Your task to perform on an android device: check data usage Image 0: 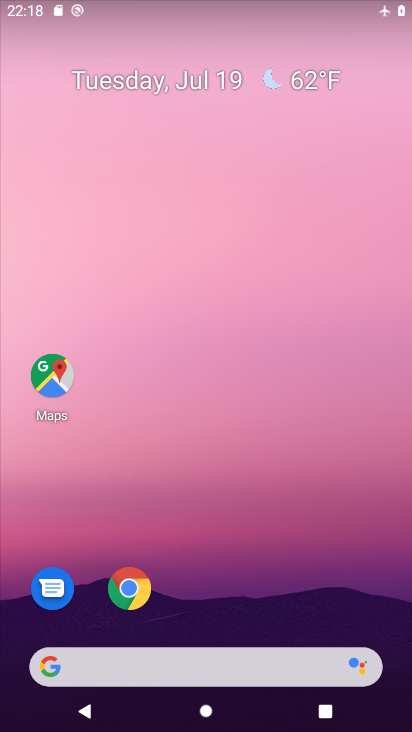
Step 0: drag from (191, 615) to (213, 90)
Your task to perform on an android device: check data usage Image 1: 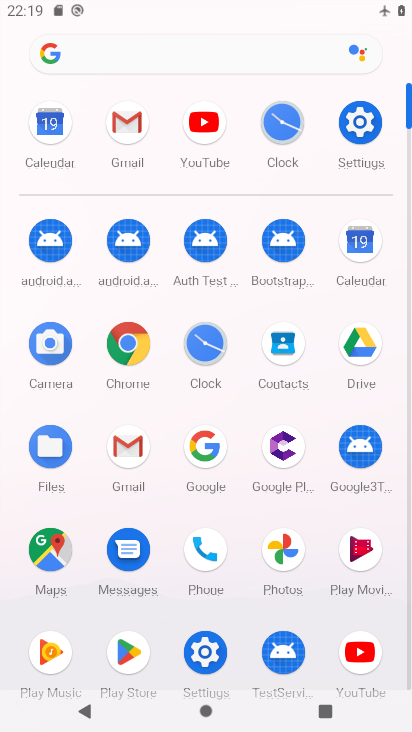
Step 1: click (364, 149)
Your task to perform on an android device: check data usage Image 2: 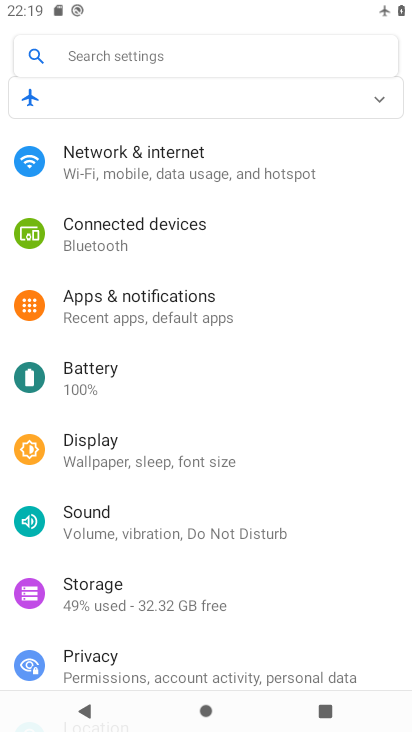
Step 2: click (169, 177)
Your task to perform on an android device: check data usage Image 3: 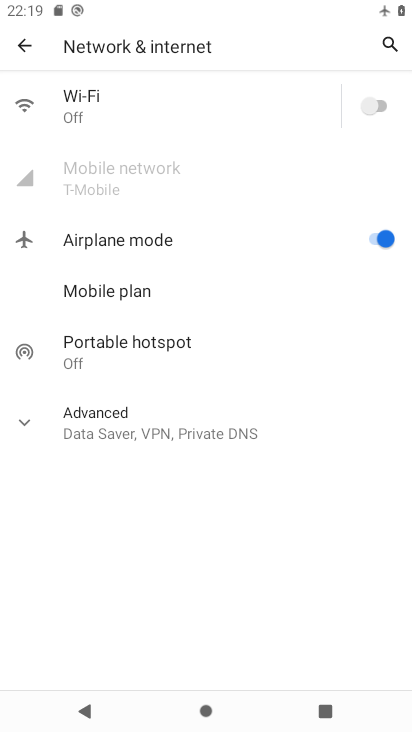
Step 3: click (169, 177)
Your task to perform on an android device: check data usage Image 4: 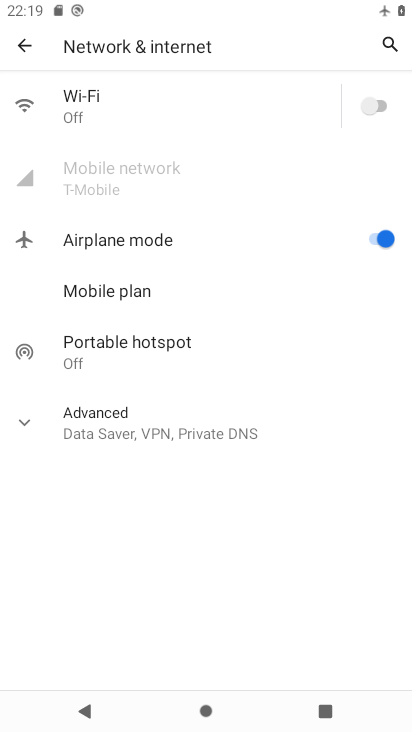
Step 4: click (382, 238)
Your task to perform on an android device: check data usage Image 5: 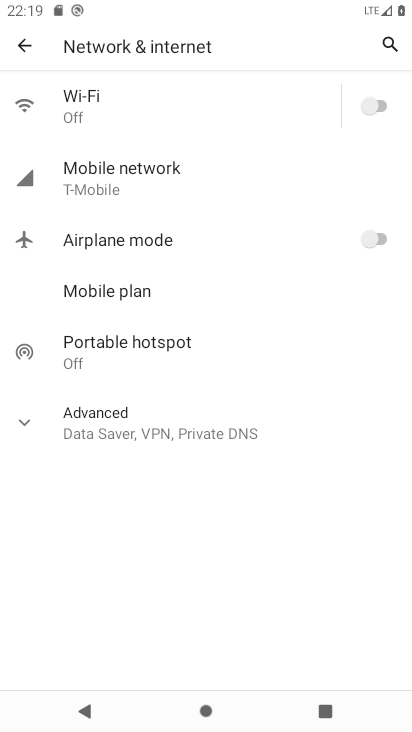
Step 5: click (182, 184)
Your task to perform on an android device: check data usage Image 6: 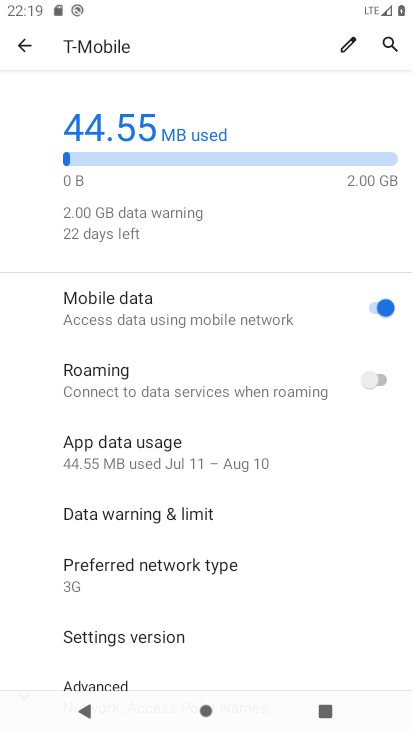
Step 6: task complete